Your task to perform on an android device: change text size in settings app Image 0: 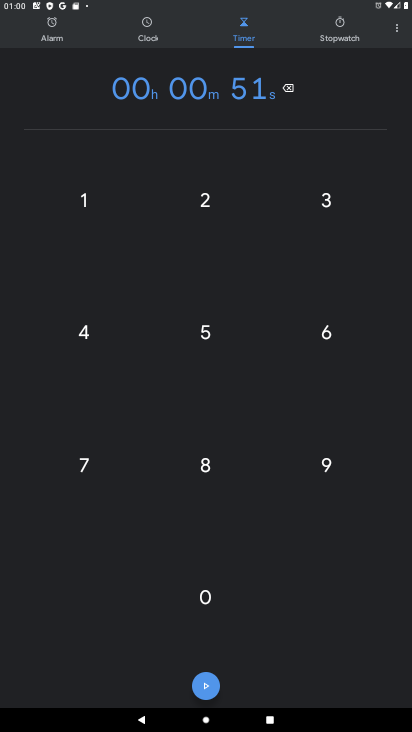
Step 0: press home button
Your task to perform on an android device: change text size in settings app Image 1: 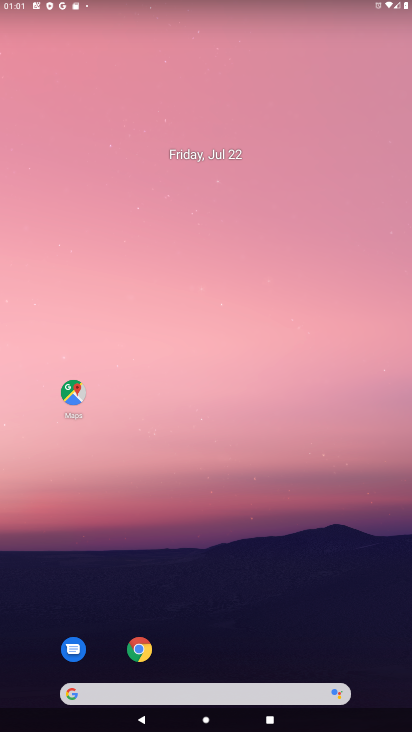
Step 1: drag from (236, 420) to (177, 20)
Your task to perform on an android device: change text size in settings app Image 2: 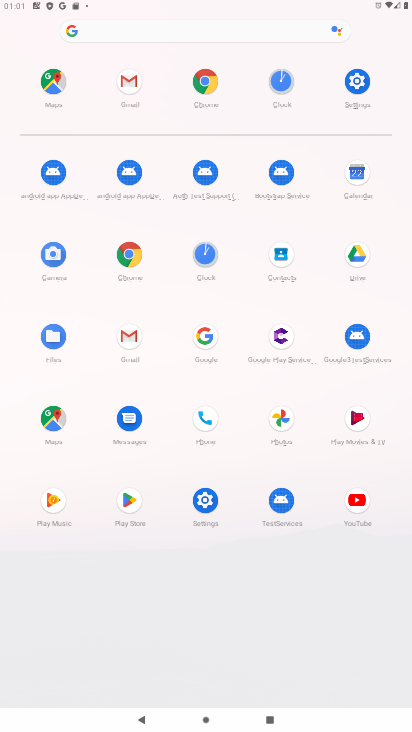
Step 2: click (210, 502)
Your task to perform on an android device: change text size in settings app Image 3: 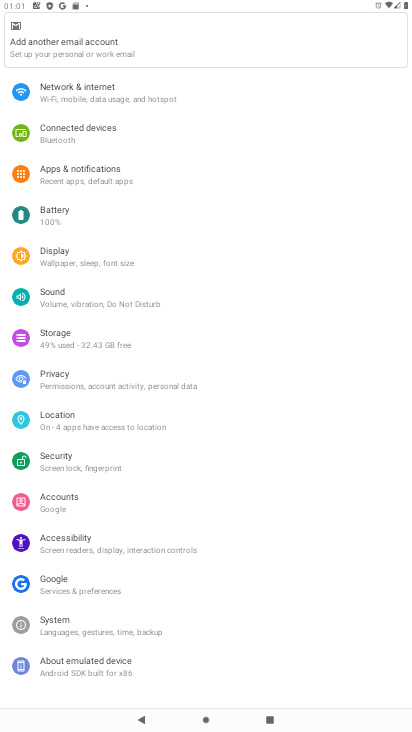
Step 3: click (78, 252)
Your task to perform on an android device: change text size in settings app Image 4: 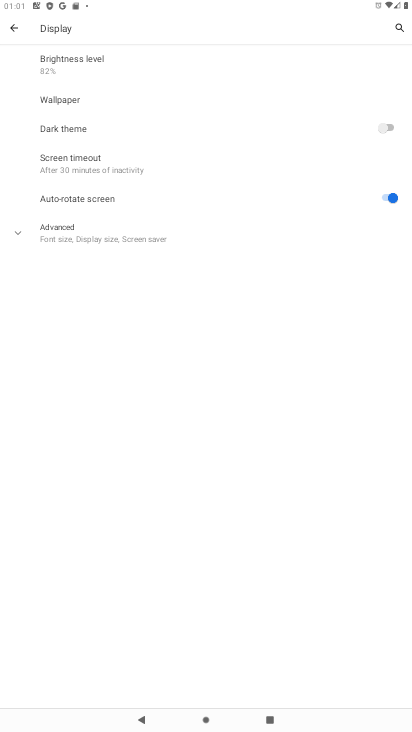
Step 4: click (69, 237)
Your task to perform on an android device: change text size in settings app Image 5: 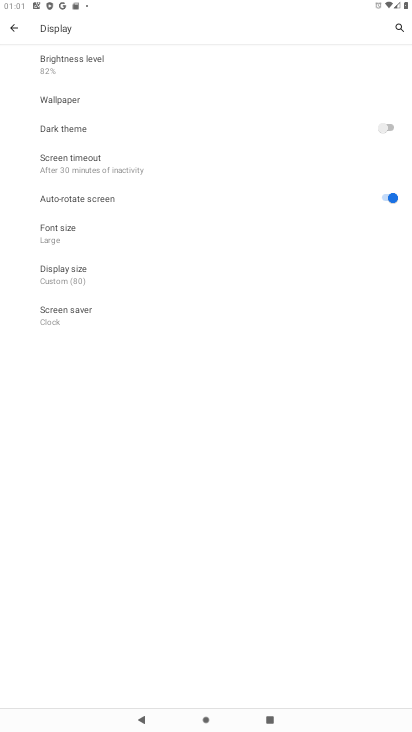
Step 5: click (69, 235)
Your task to perform on an android device: change text size in settings app Image 6: 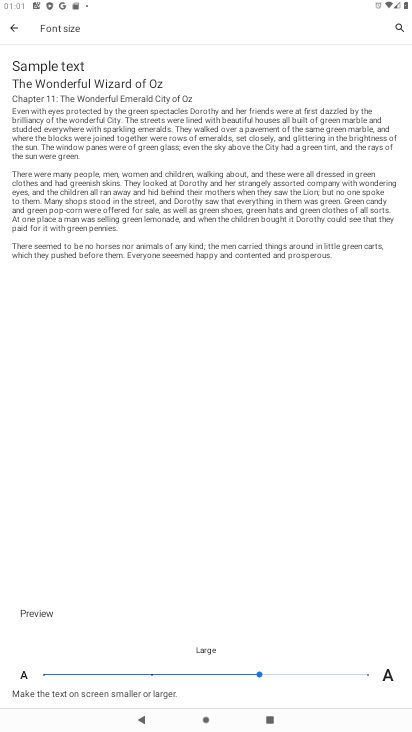
Step 6: click (98, 672)
Your task to perform on an android device: change text size in settings app Image 7: 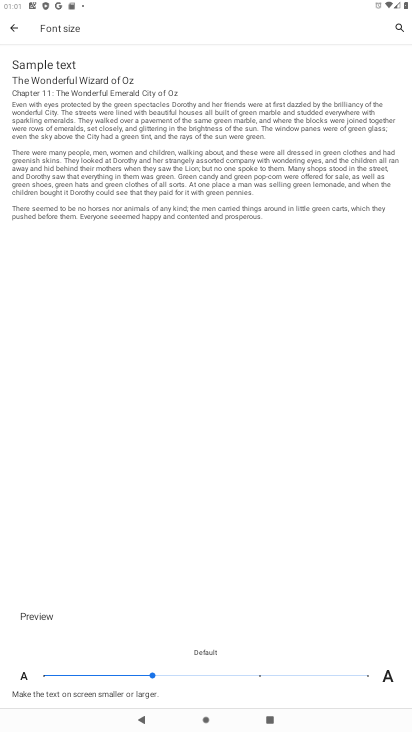
Step 7: click (100, 676)
Your task to perform on an android device: change text size in settings app Image 8: 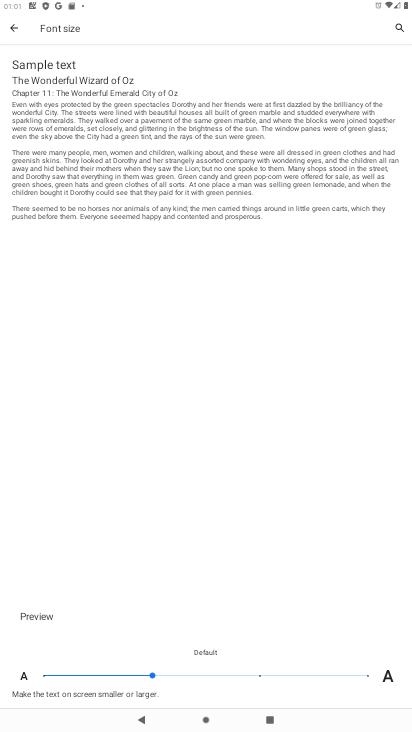
Step 8: click (83, 677)
Your task to perform on an android device: change text size in settings app Image 9: 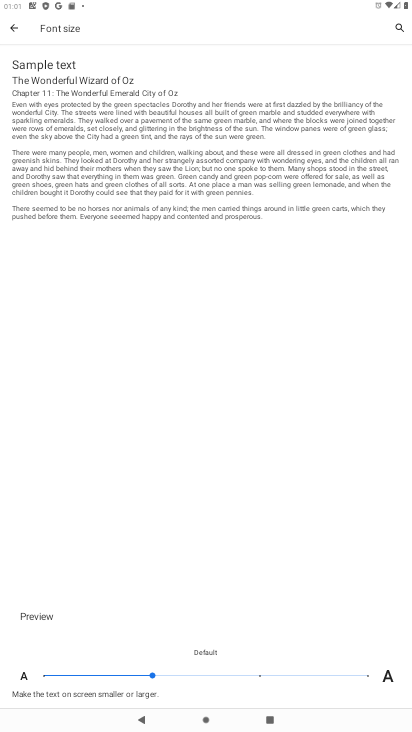
Step 9: click (83, 676)
Your task to perform on an android device: change text size in settings app Image 10: 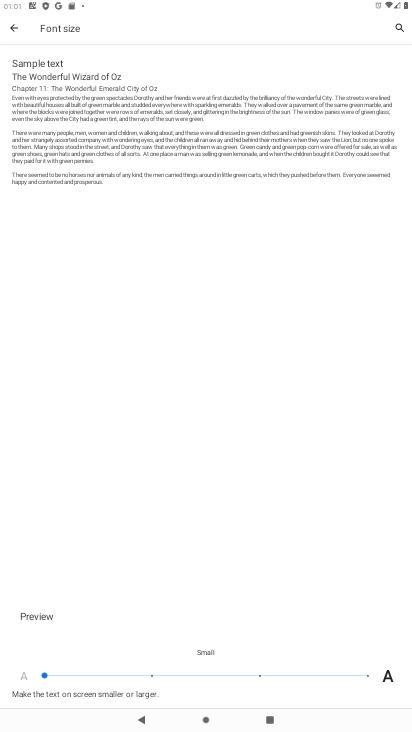
Step 10: click (83, 676)
Your task to perform on an android device: change text size in settings app Image 11: 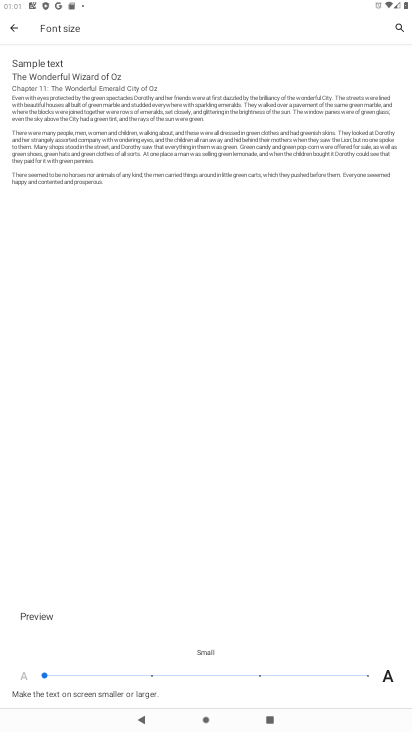
Step 11: click (83, 676)
Your task to perform on an android device: change text size in settings app Image 12: 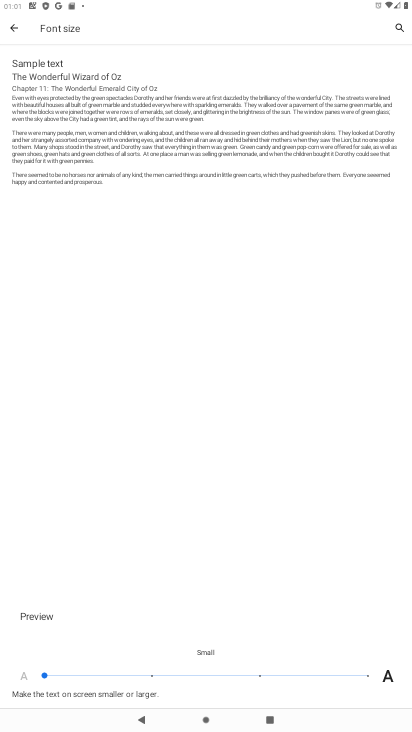
Step 12: click (83, 676)
Your task to perform on an android device: change text size in settings app Image 13: 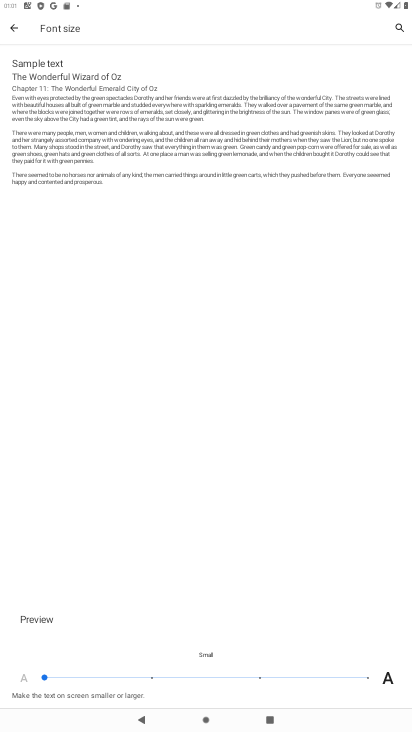
Step 13: task complete